Your task to perform on an android device: change notification settings in the gmail app Image 0: 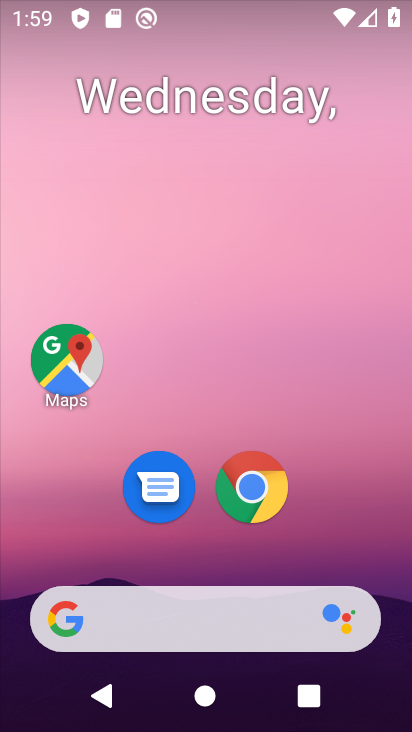
Step 0: drag from (199, 554) to (223, 12)
Your task to perform on an android device: change notification settings in the gmail app Image 1: 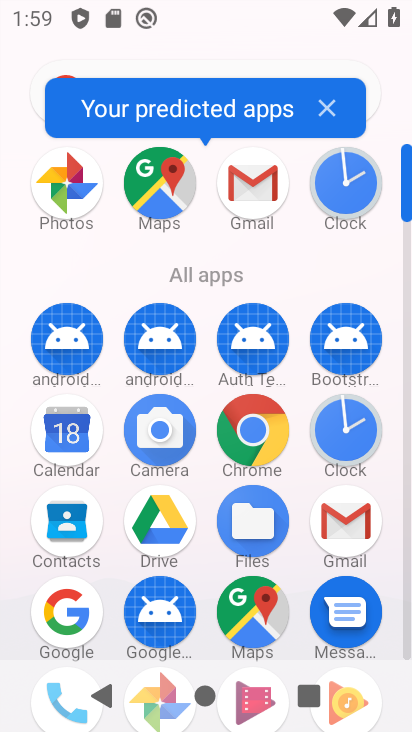
Step 1: click (248, 176)
Your task to perform on an android device: change notification settings in the gmail app Image 2: 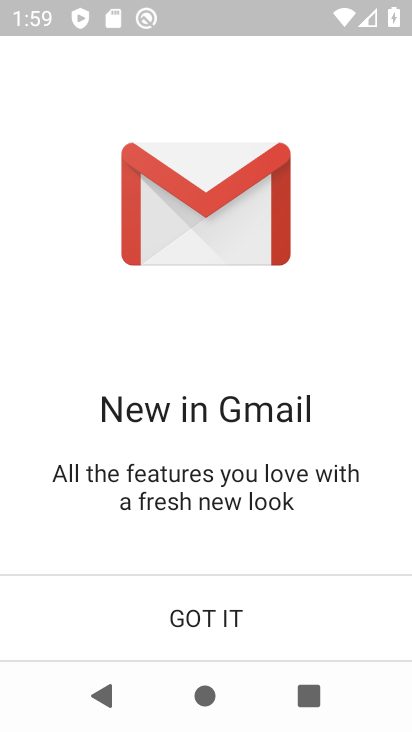
Step 2: click (203, 623)
Your task to perform on an android device: change notification settings in the gmail app Image 3: 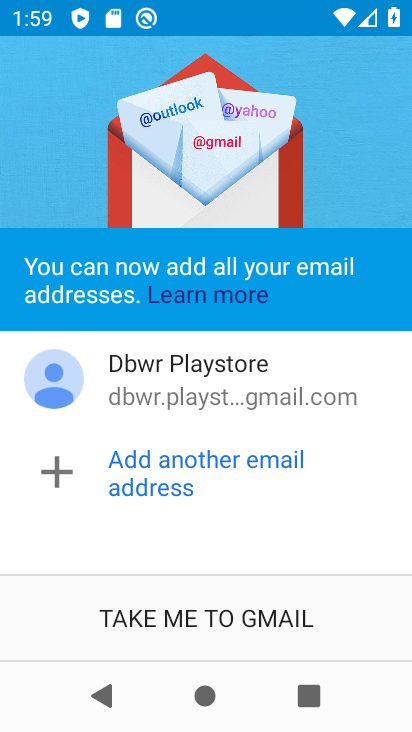
Step 3: click (201, 636)
Your task to perform on an android device: change notification settings in the gmail app Image 4: 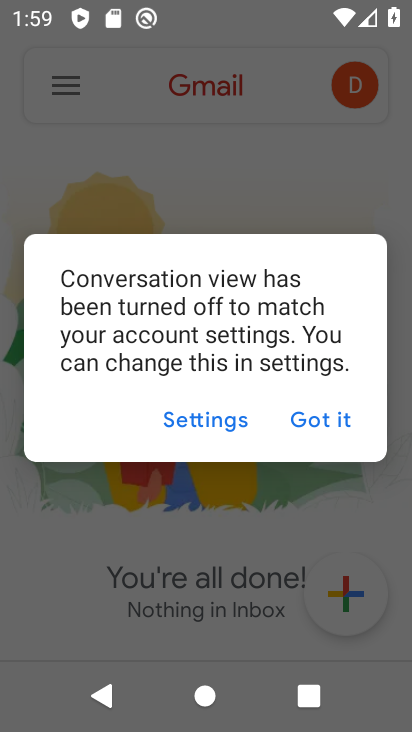
Step 4: click (328, 429)
Your task to perform on an android device: change notification settings in the gmail app Image 5: 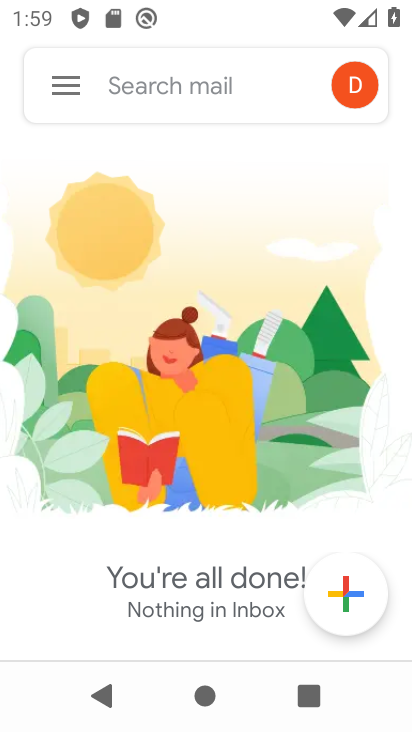
Step 5: click (59, 84)
Your task to perform on an android device: change notification settings in the gmail app Image 6: 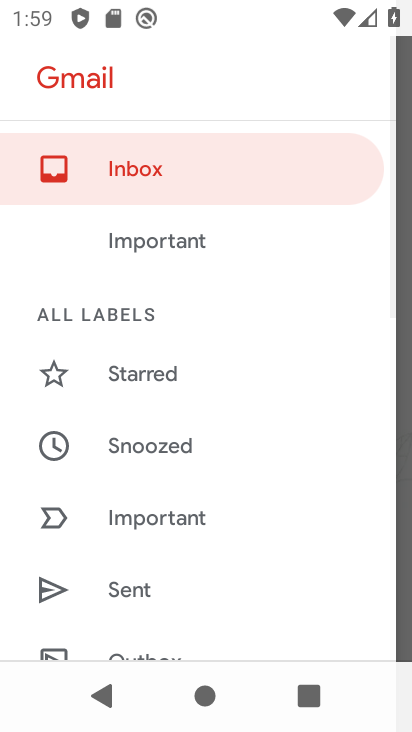
Step 6: drag from (176, 638) to (202, 23)
Your task to perform on an android device: change notification settings in the gmail app Image 7: 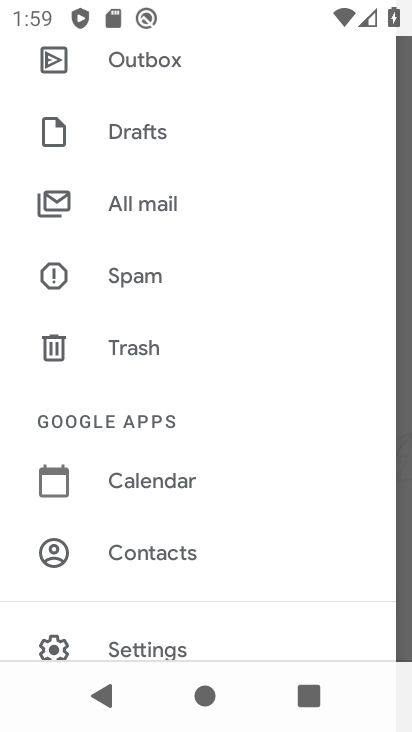
Step 7: click (190, 647)
Your task to perform on an android device: change notification settings in the gmail app Image 8: 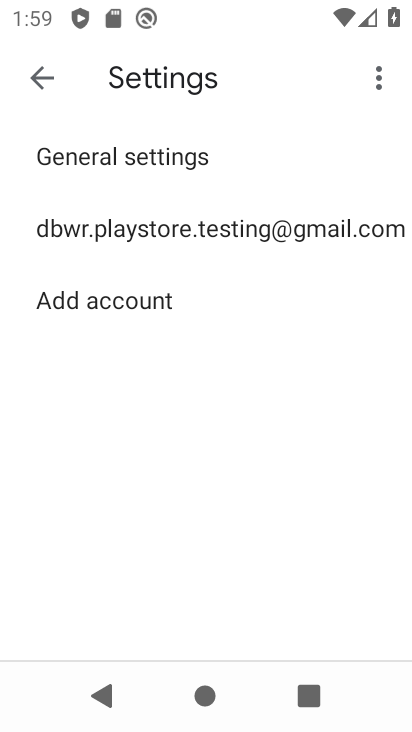
Step 8: click (212, 160)
Your task to perform on an android device: change notification settings in the gmail app Image 9: 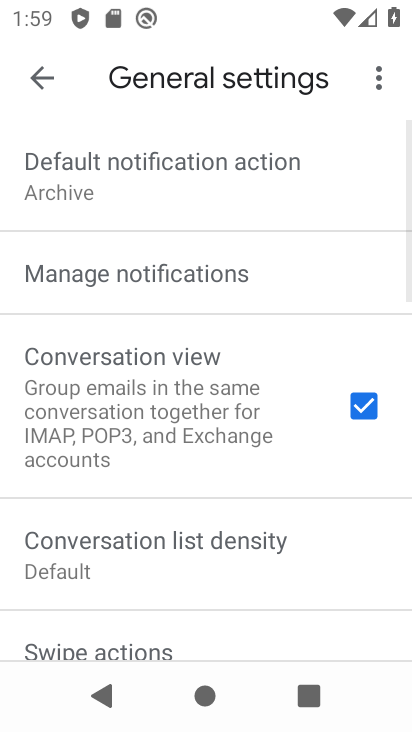
Step 9: click (264, 274)
Your task to perform on an android device: change notification settings in the gmail app Image 10: 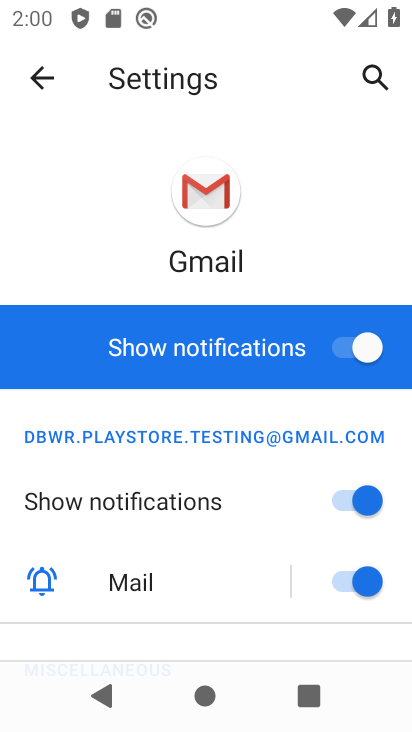
Step 10: click (347, 344)
Your task to perform on an android device: change notification settings in the gmail app Image 11: 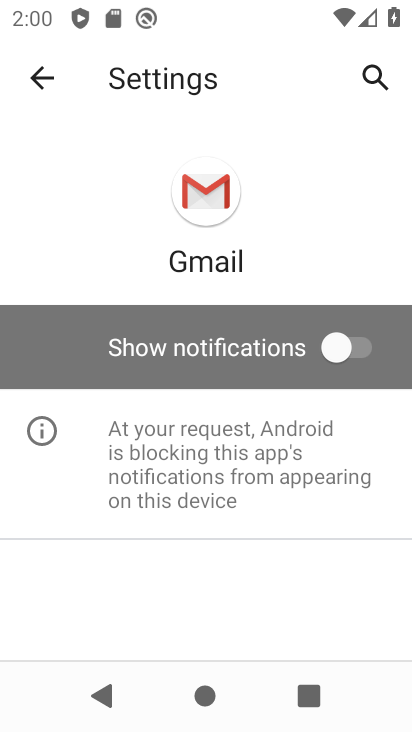
Step 11: task complete